Your task to perform on an android device: Open Google Chrome and open the bookmarks view Image 0: 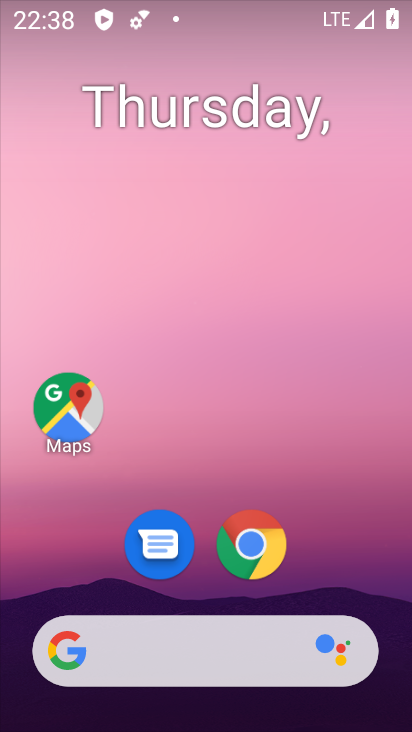
Step 0: click (247, 547)
Your task to perform on an android device: Open Google Chrome and open the bookmarks view Image 1: 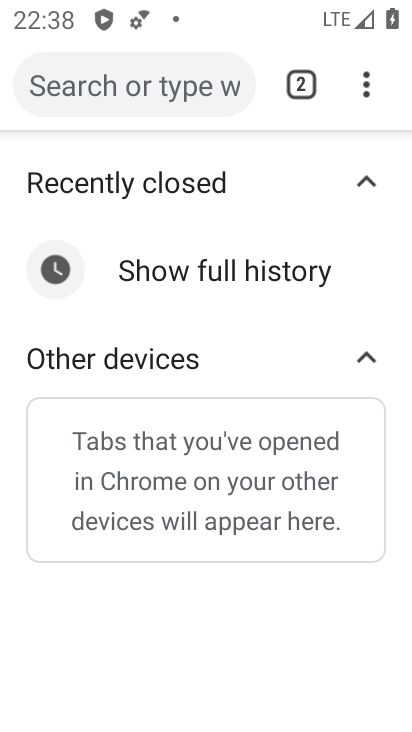
Step 1: click (373, 90)
Your task to perform on an android device: Open Google Chrome and open the bookmarks view Image 2: 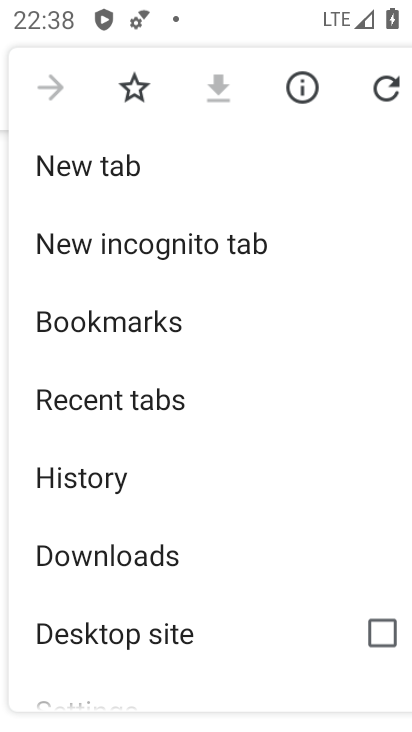
Step 2: click (100, 319)
Your task to perform on an android device: Open Google Chrome and open the bookmarks view Image 3: 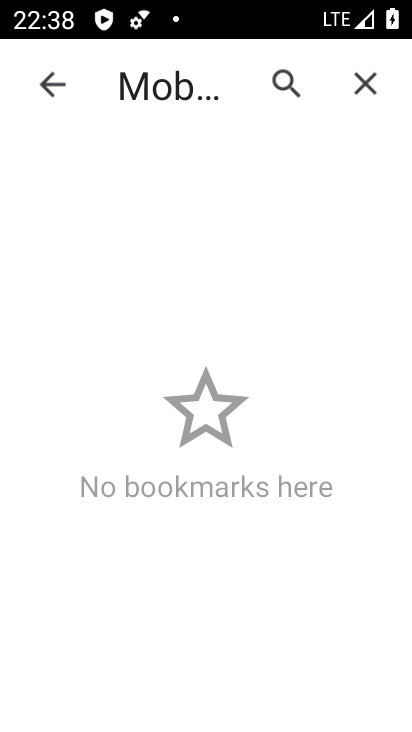
Step 3: task complete